Your task to perform on an android device: Go to Reddit.com Image 0: 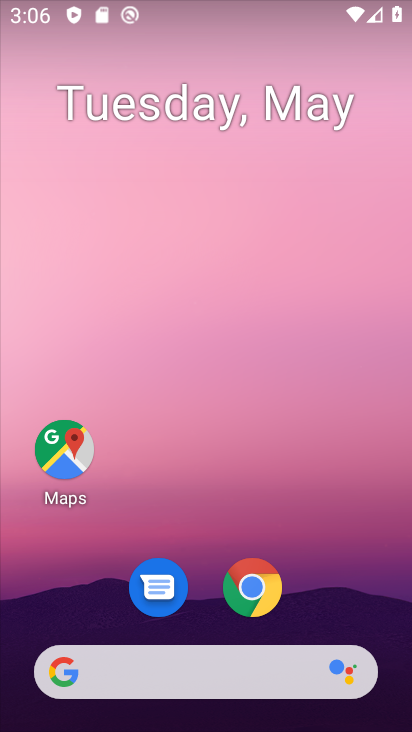
Step 0: click (248, 594)
Your task to perform on an android device: Go to Reddit.com Image 1: 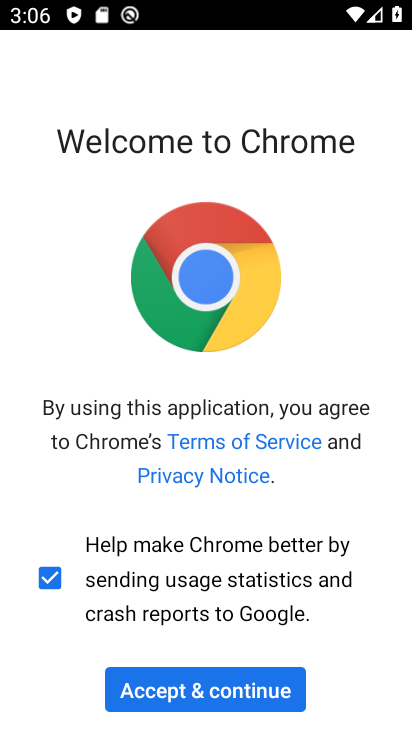
Step 1: click (161, 685)
Your task to perform on an android device: Go to Reddit.com Image 2: 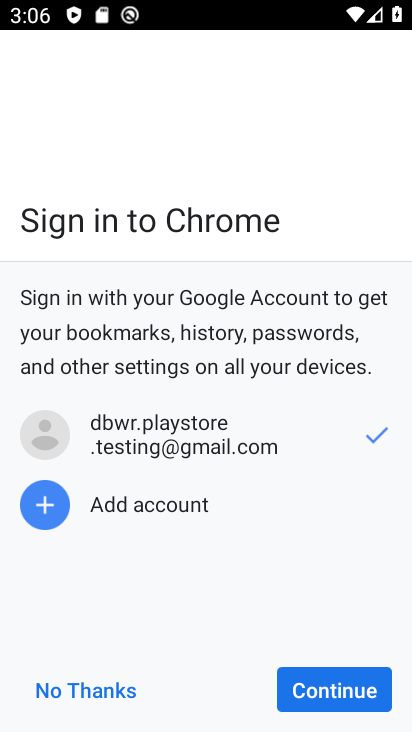
Step 2: click (324, 697)
Your task to perform on an android device: Go to Reddit.com Image 3: 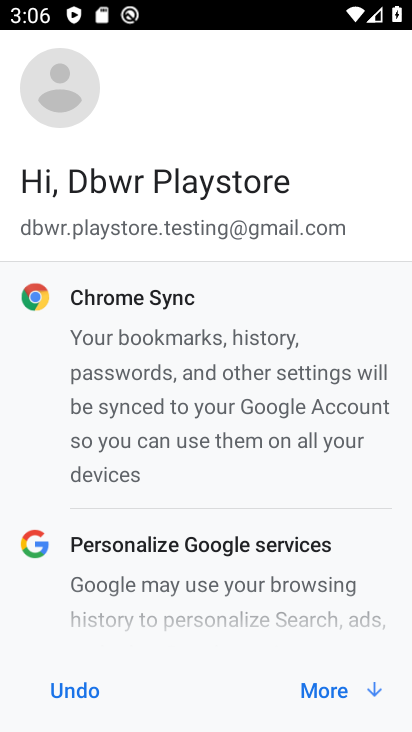
Step 3: click (338, 688)
Your task to perform on an android device: Go to Reddit.com Image 4: 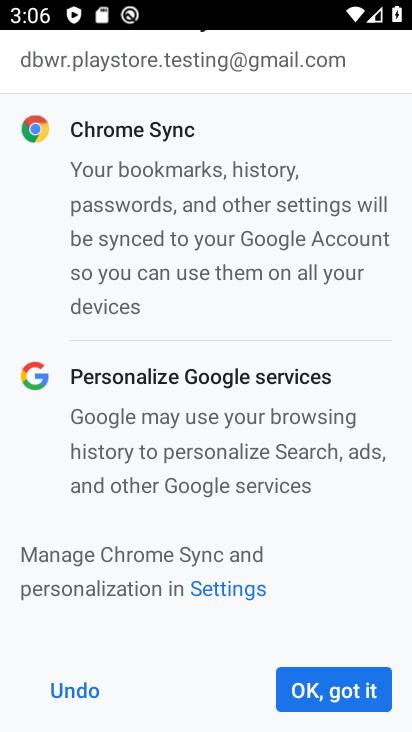
Step 4: click (337, 687)
Your task to perform on an android device: Go to Reddit.com Image 5: 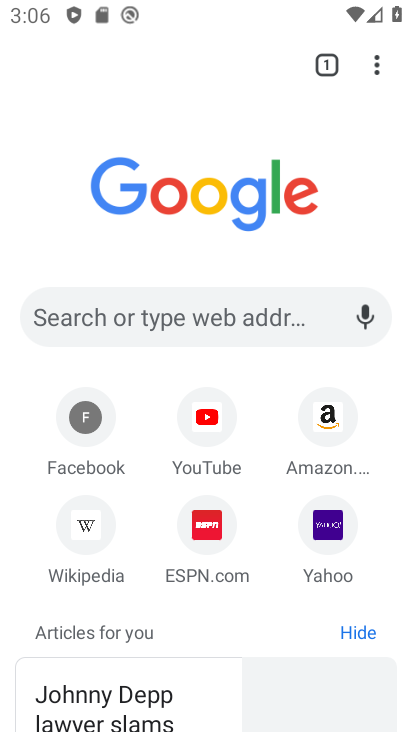
Step 5: click (240, 308)
Your task to perform on an android device: Go to Reddit.com Image 6: 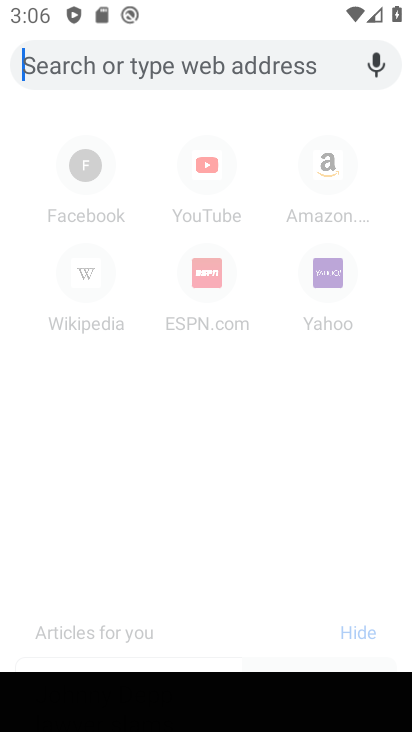
Step 6: type "Reddit.com"
Your task to perform on an android device: Go to Reddit.com Image 7: 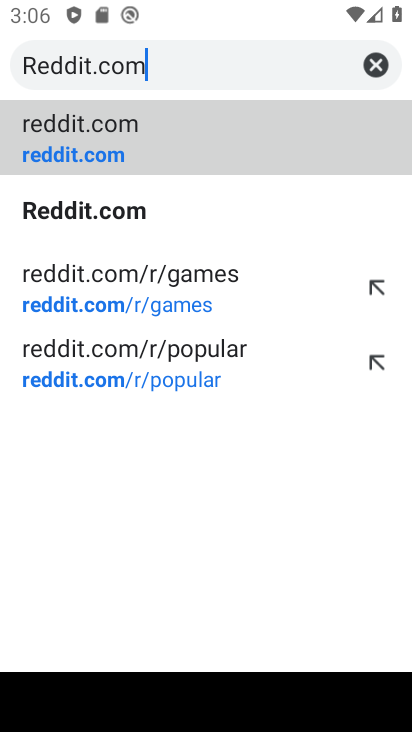
Step 7: click (216, 141)
Your task to perform on an android device: Go to Reddit.com Image 8: 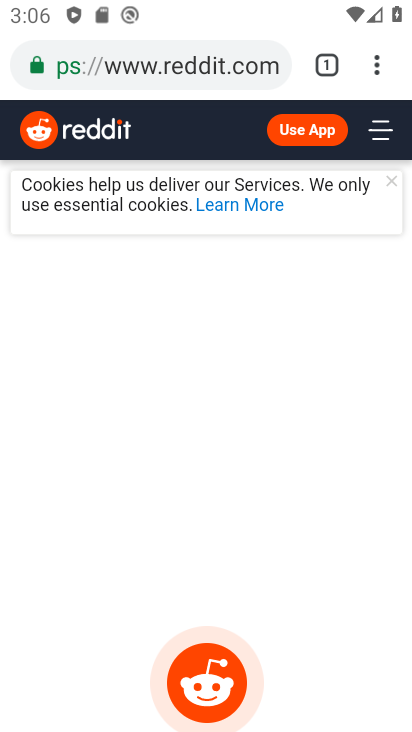
Step 8: task complete